Your task to perform on an android device: turn off wifi Image 0: 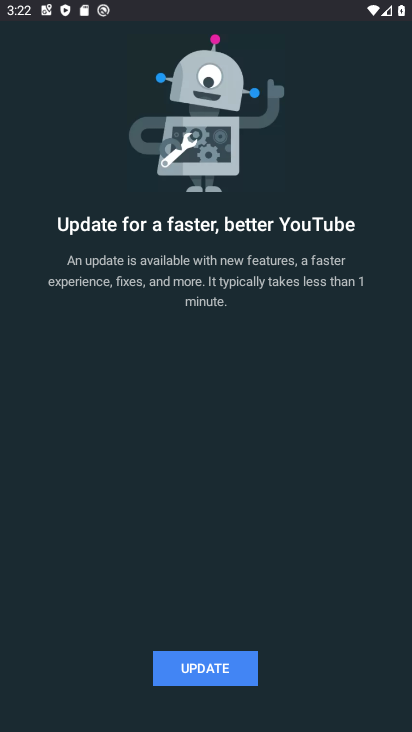
Step 0: drag from (81, 628) to (159, 184)
Your task to perform on an android device: turn off wifi Image 1: 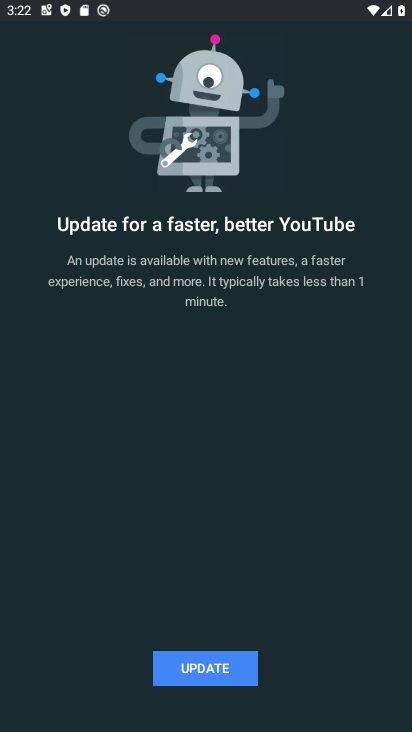
Step 1: press home button
Your task to perform on an android device: turn off wifi Image 2: 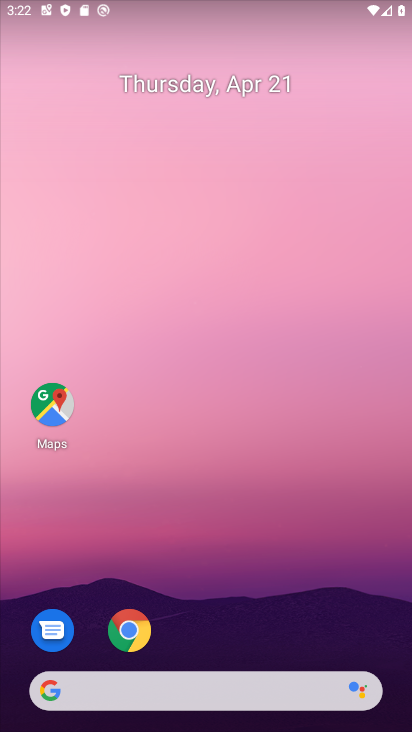
Step 2: drag from (104, 10) to (206, 518)
Your task to perform on an android device: turn off wifi Image 3: 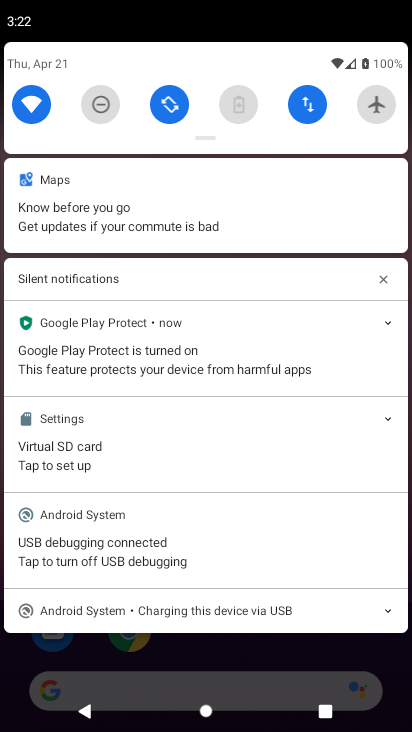
Step 3: click (23, 110)
Your task to perform on an android device: turn off wifi Image 4: 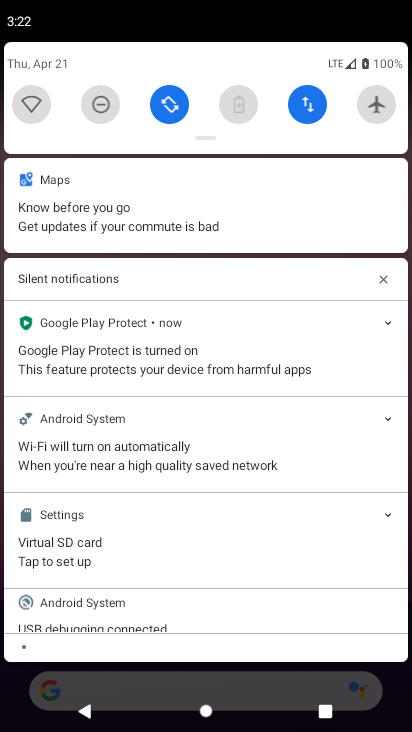
Step 4: task complete